Your task to perform on an android device: Go to Google maps Image 0: 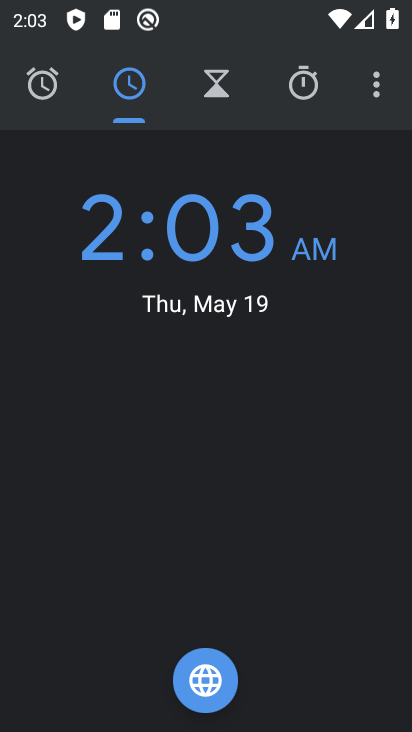
Step 0: press home button
Your task to perform on an android device: Go to Google maps Image 1: 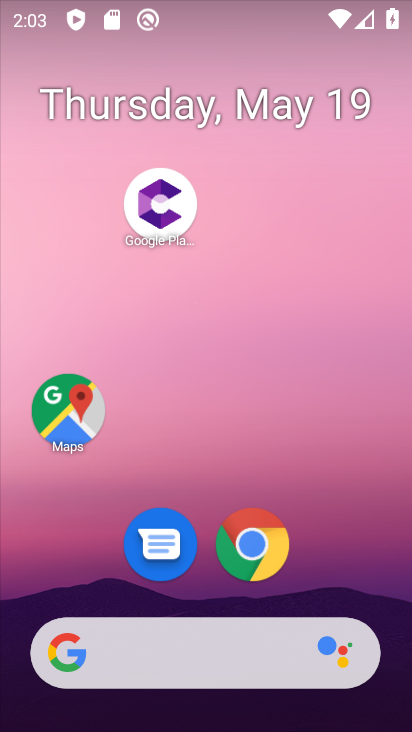
Step 1: drag from (228, 678) to (199, 298)
Your task to perform on an android device: Go to Google maps Image 2: 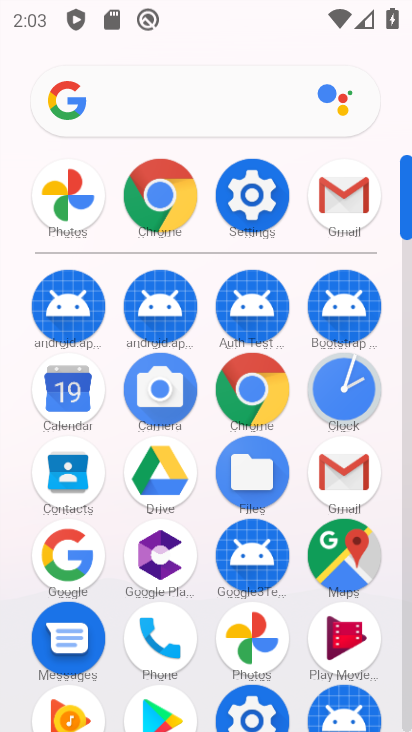
Step 2: click (339, 555)
Your task to perform on an android device: Go to Google maps Image 3: 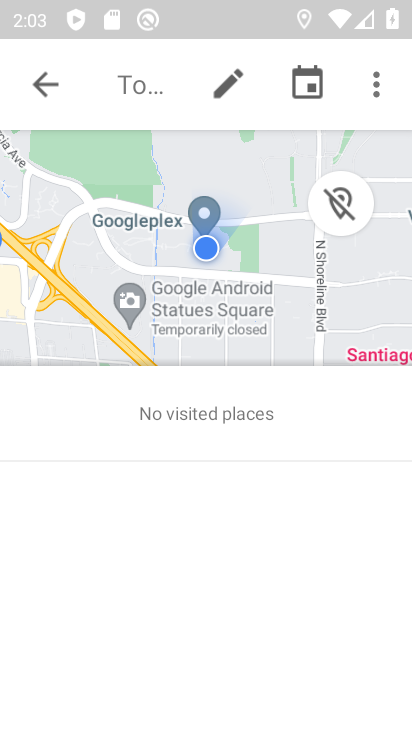
Step 3: click (33, 82)
Your task to perform on an android device: Go to Google maps Image 4: 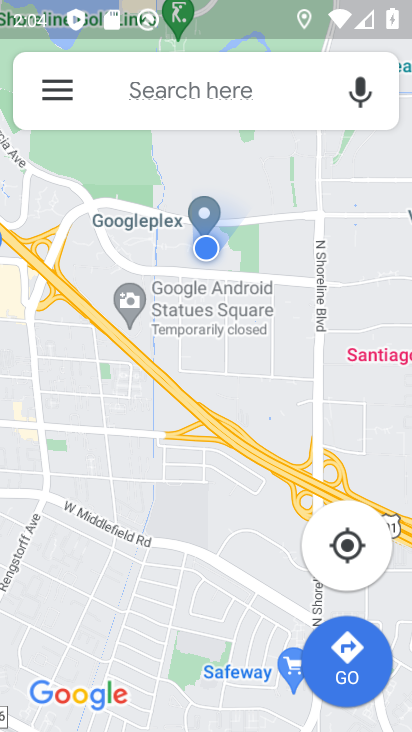
Step 4: task complete